Your task to perform on an android device: toggle javascript in the chrome app Image 0: 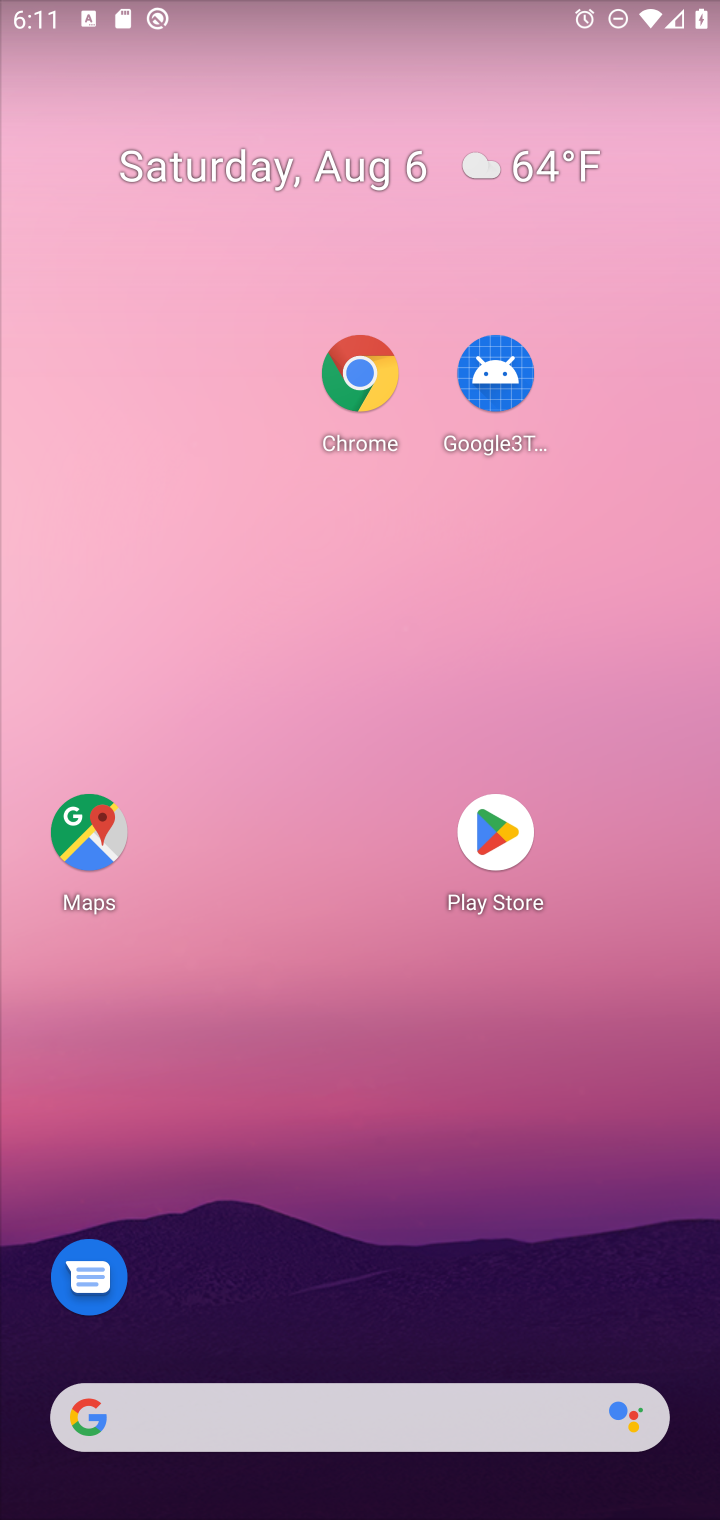
Step 0: drag from (485, 1408) to (99, 1028)
Your task to perform on an android device: toggle javascript in the chrome app Image 1: 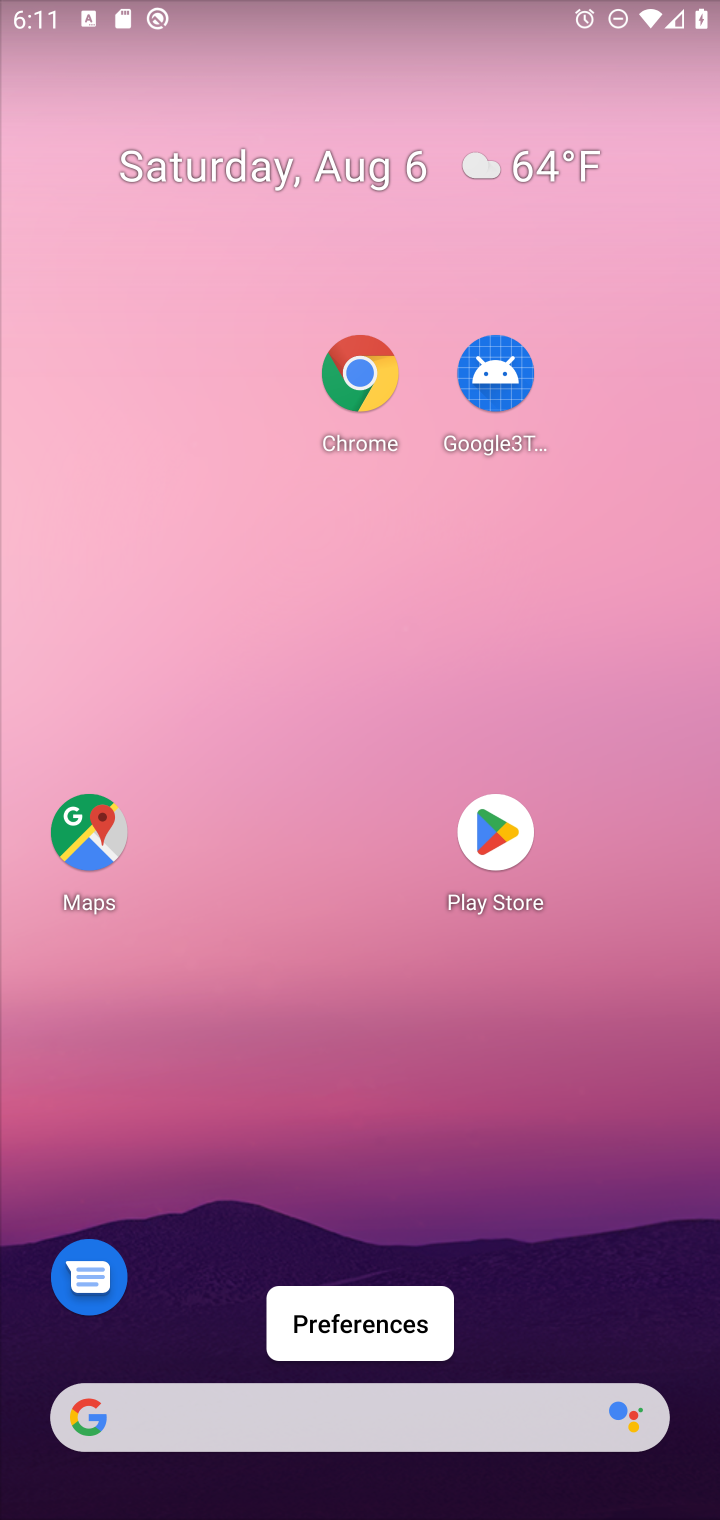
Step 1: drag from (265, 1418) to (413, 5)
Your task to perform on an android device: toggle javascript in the chrome app Image 2: 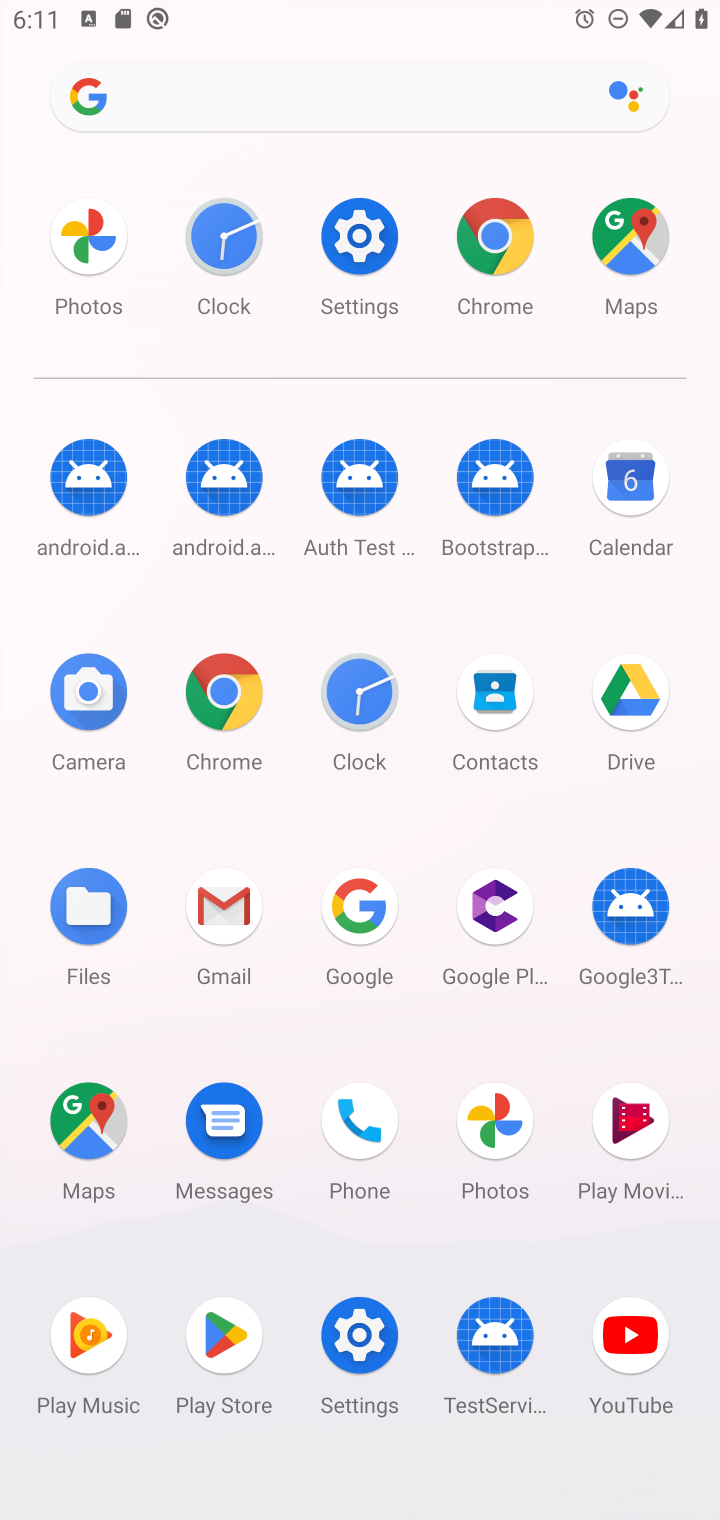
Step 2: click (225, 663)
Your task to perform on an android device: toggle javascript in the chrome app Image 3: 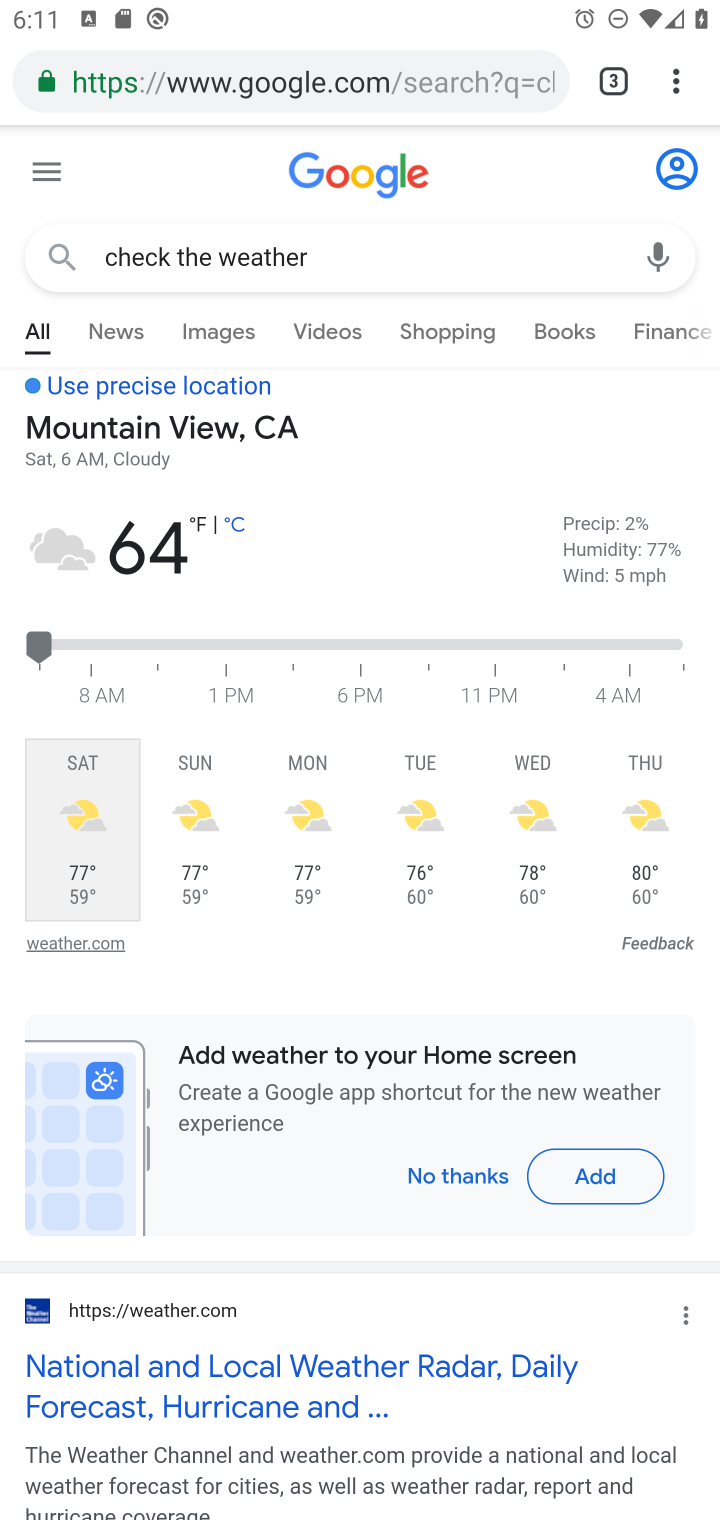
Step 3: click (671, 86)
Your task to perform on an android device: toggle javascript in the chrome app Image 4: 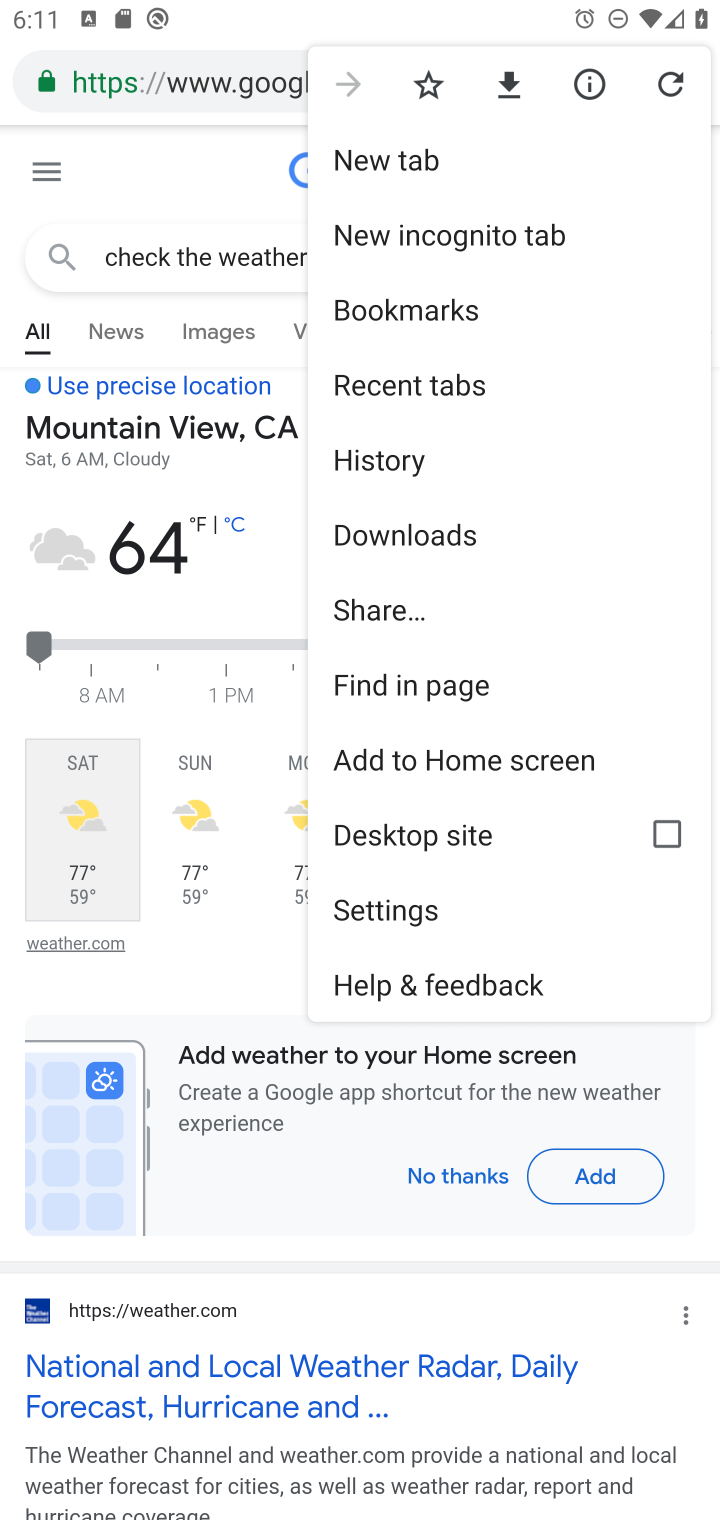
Step 4: click (367, 912)
Your task to perform on an android device: toggle javascript in the chrome app Image 5: 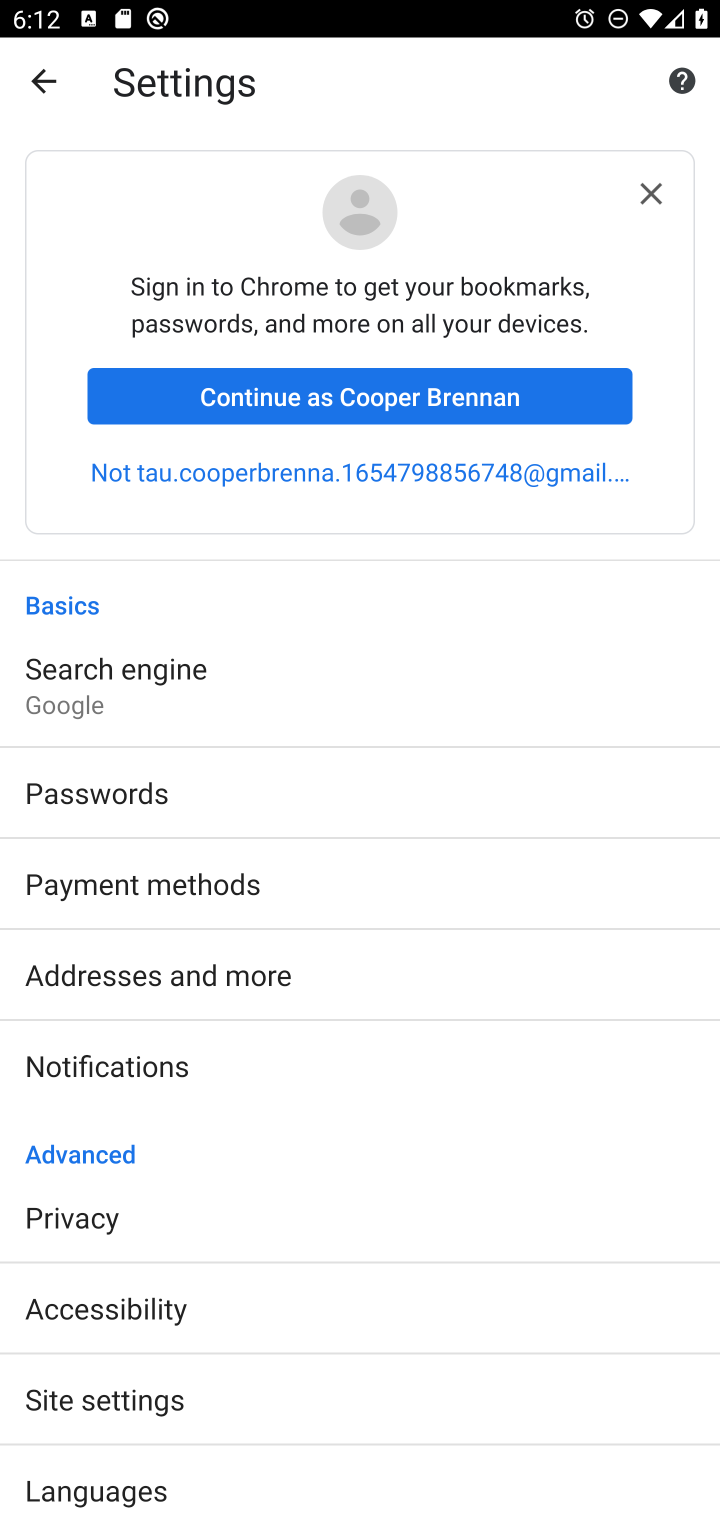
Step 5: click (144, 1388)
Your task to perform on an android device: toggle javascript in the chrome app Image 6: 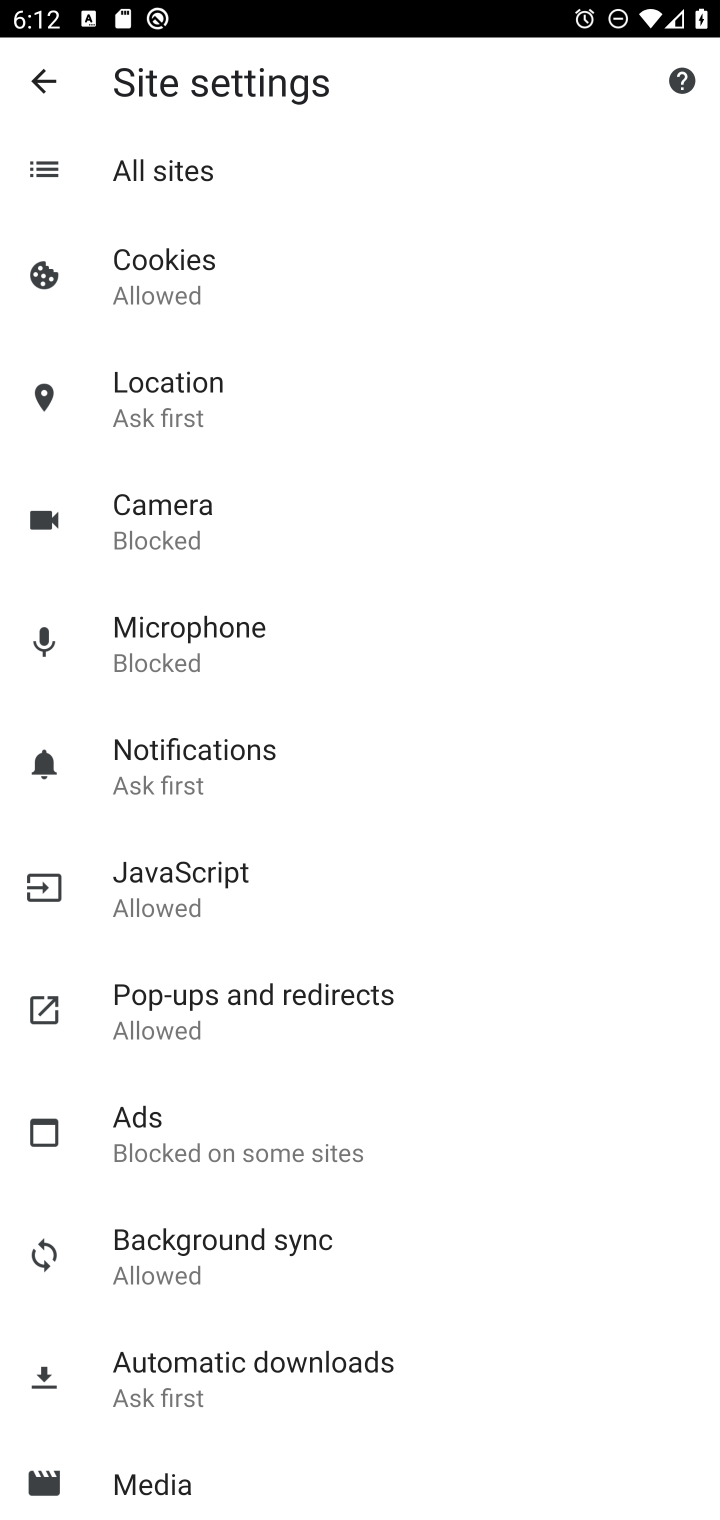
Step 6: click (196, 899)
Your task to perform on an android device: toggle javascript in the chrome app Image 7: 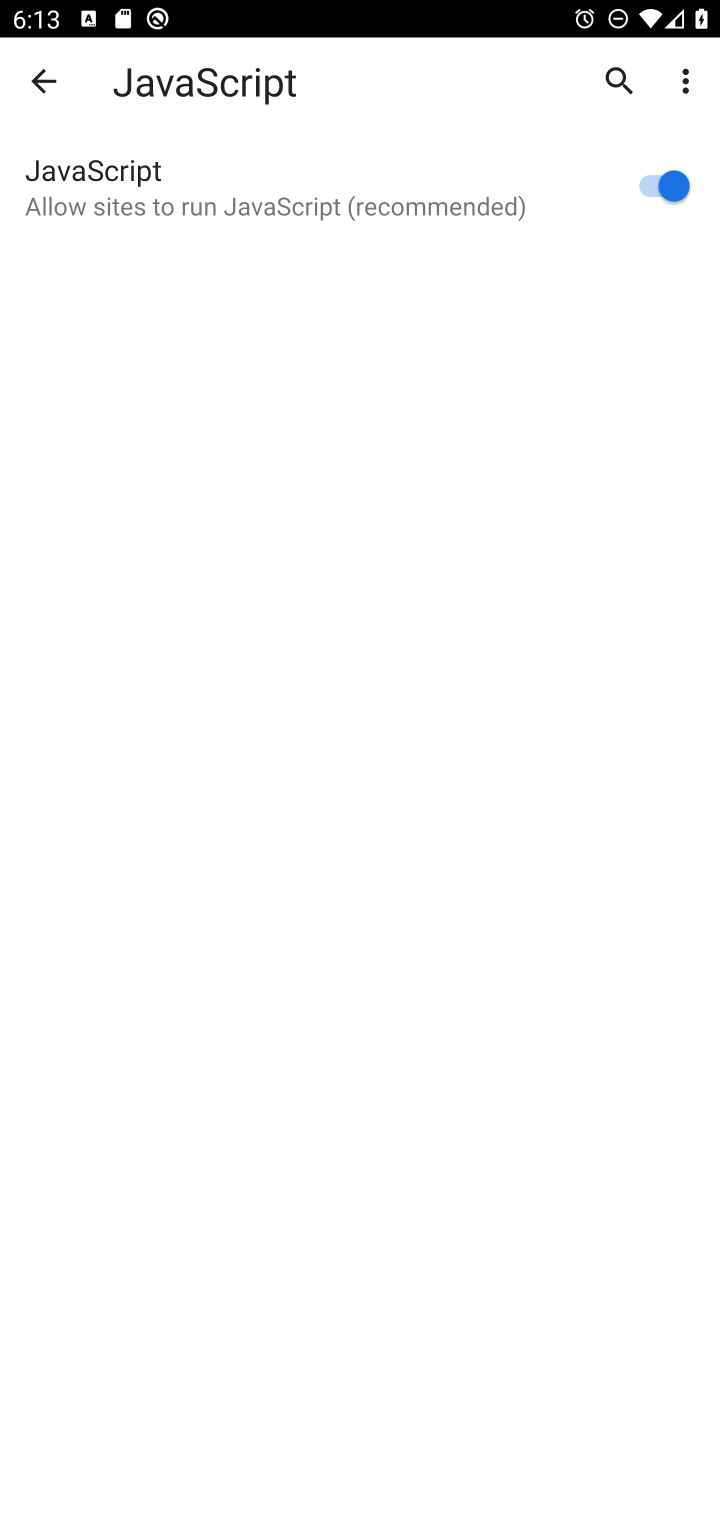
Step 7: task complete